Your task to perform on an android device: Go to Reddit.com Image 0: 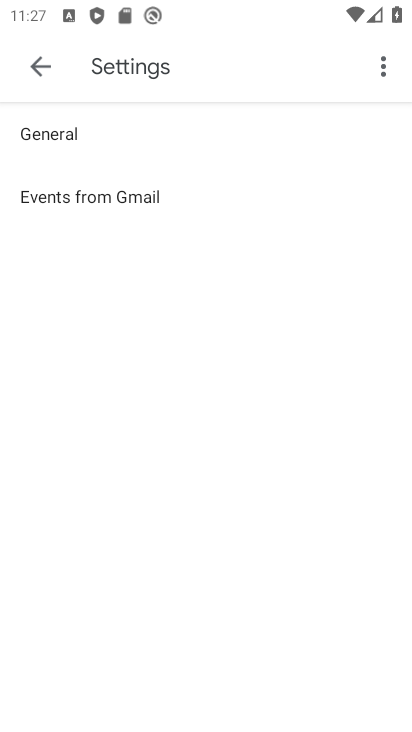
Step 0: press home button
Your task to perform on an android device: Go to Reddit.com Image 1: 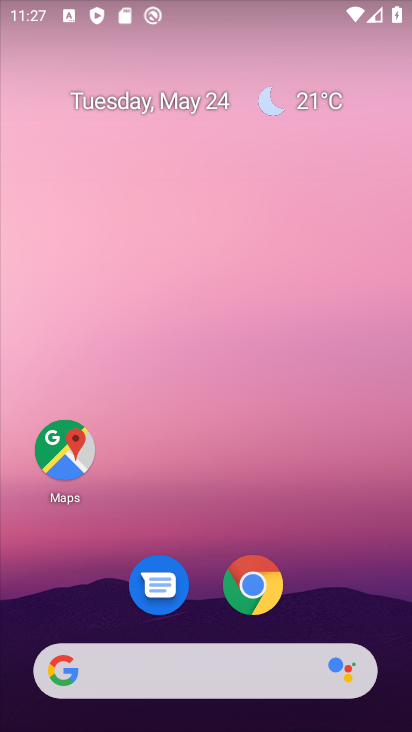
Step 1: click (234, 670)
Your task to perform on an android device: Go to Reddit.com Image 2: 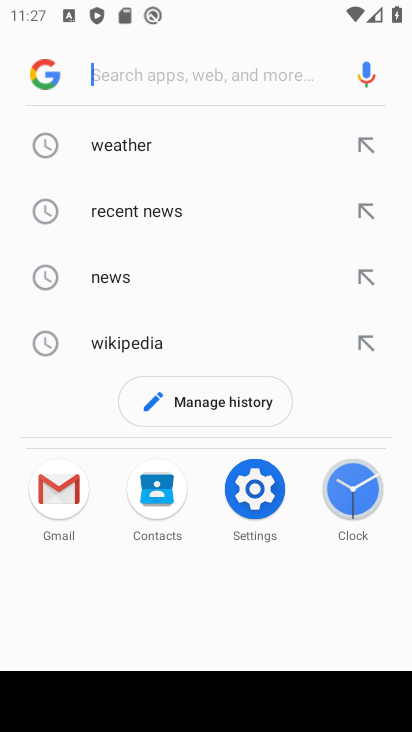
Step 2: type "reddit.com"
Your task to perform on an android device: Go to Reddit.com Image 3: 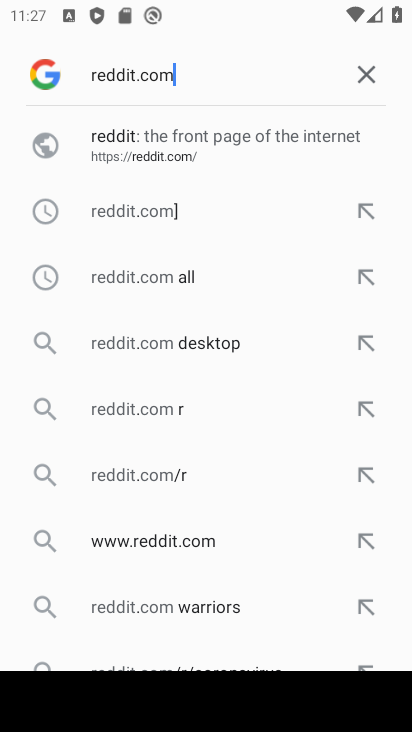
Step 3: click (94, 138)
Your task to perform on an android device: Go to Reddit.com Image 4: 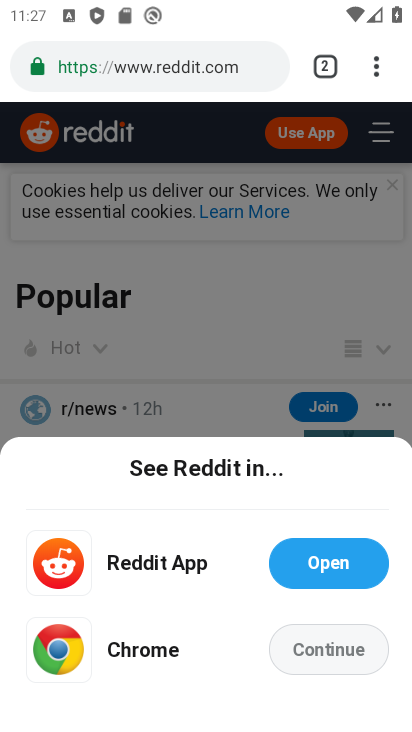
Step 4: task complete